Your task to perform on an android device: toggle improve location accuracy Image 0: 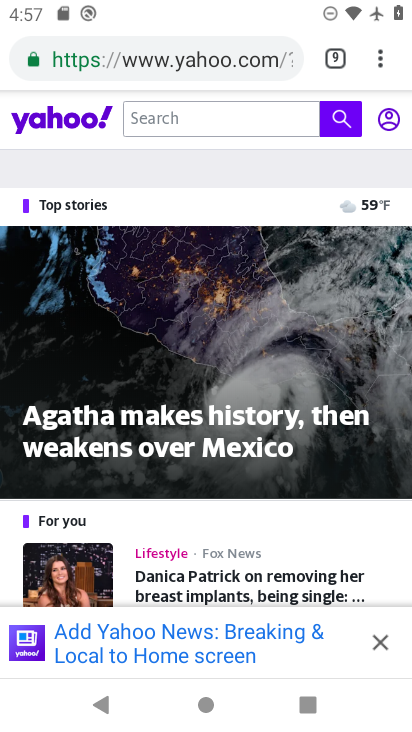
Step 0: press home button
Your task to perform on an android device: toggle improve location accuracy Image 1: 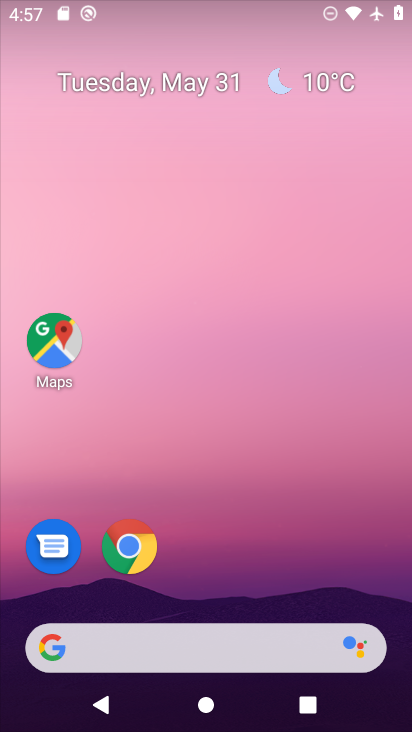
Step 1: drag from (350, 545) to (215, 41)
Your task to perform on an android device: toggle improve location accuracy Image 2: 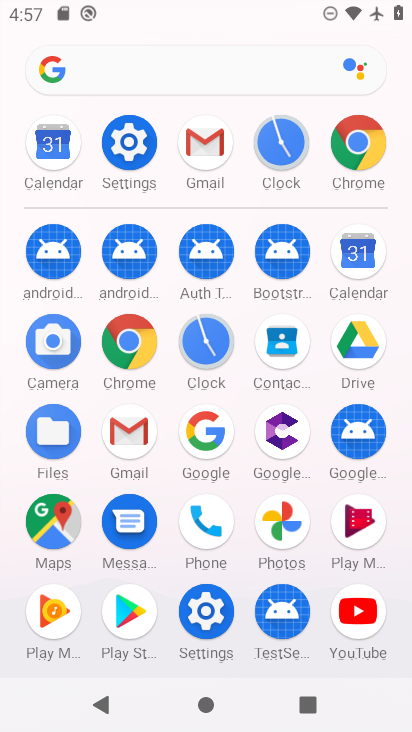
Step 2: click (135, 152)
Your task to perform on an android device: toggle improve location accuracy Image 3: 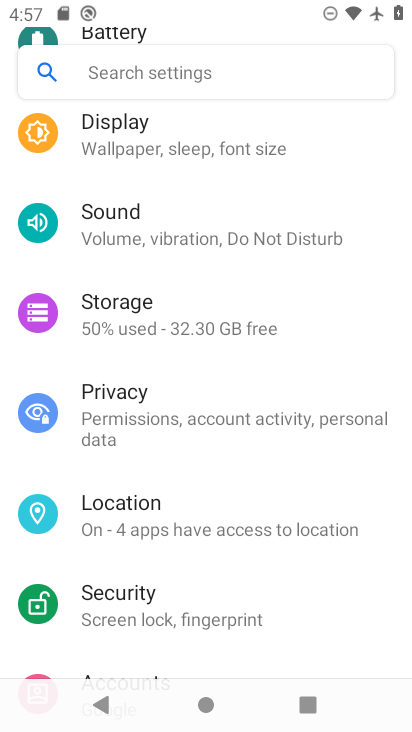
Step 3: click (227, 524)
Your task to perform on an android device: toggle improve location accuracy Image 4: 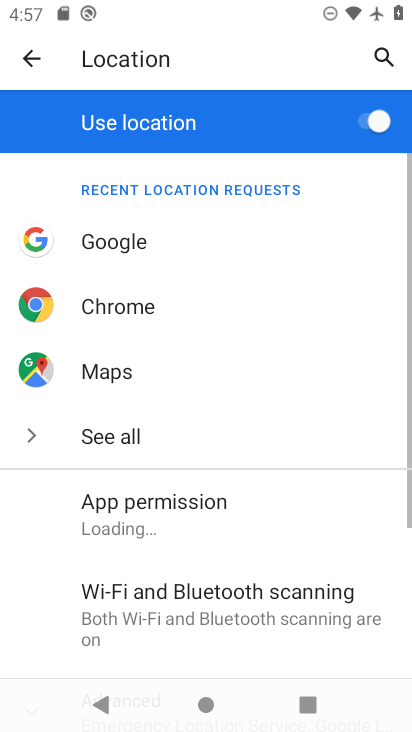
Step 4: drag from (264, 592) to (252, 41)
Your task to perform on an android device: toggle improve location accuracy Image 5: 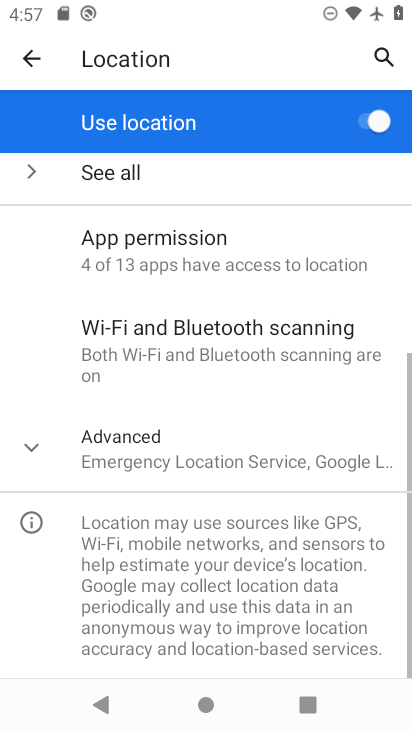
Step 5: click (220, 458)
Your task to perform on an android device: toggle improve location accuracy Image 6: 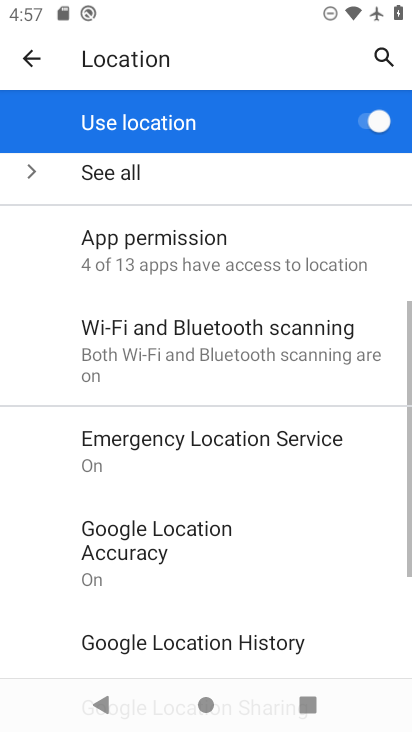
Step 6: drag from (259, 553) to (243, 54)
Your task to perform on an android device: toggle improve location accuracy Image 7: 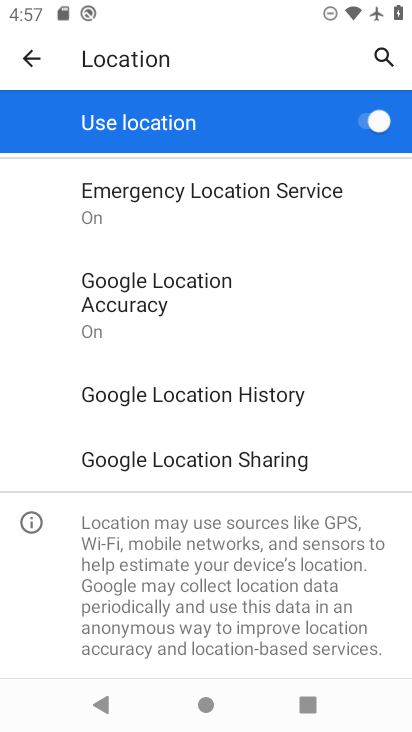
Step 7: click (227, 277)
Your task to perform on an android device: toggle improve location accuracy Image 8: 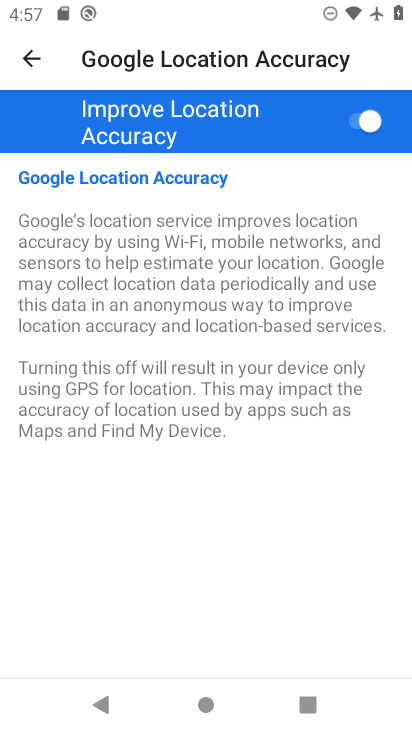
Step 8: click (365, 111)
Your task to perform on an android device: toggle improve location accuracy Image 9: 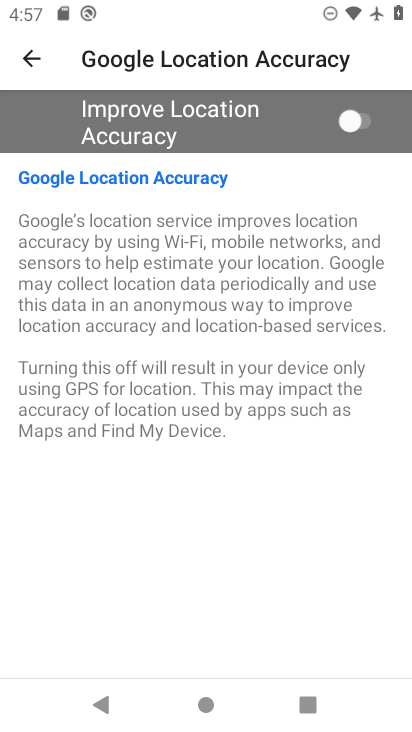
Step 9: task complete